Your task to perform on an android device: turn on sleep mode Image 0: 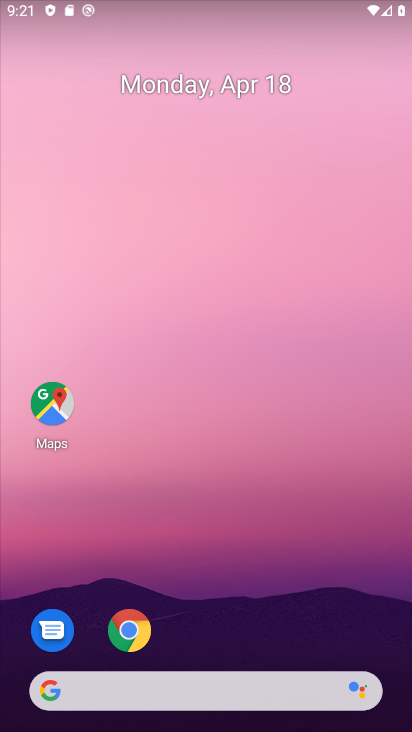
Step 0: drag from (237, 533) to (409, 568)
Your task to perform on an android device: turn on sleep mode Image 1: 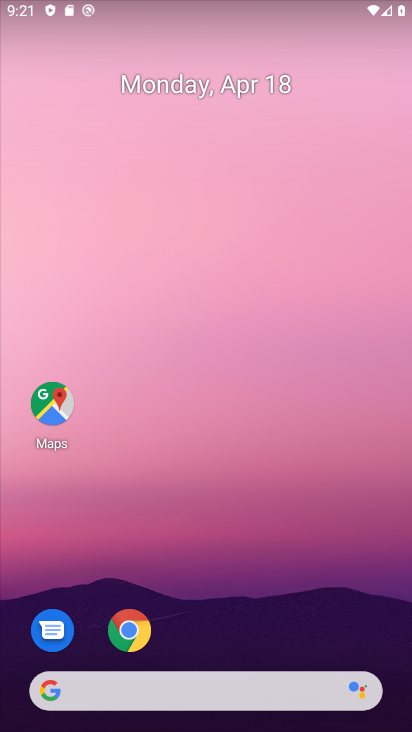
Step 1: drag from (235, 661) to (389, 129)
Your task to perform on an android device: turn on sleep mode Image 2: 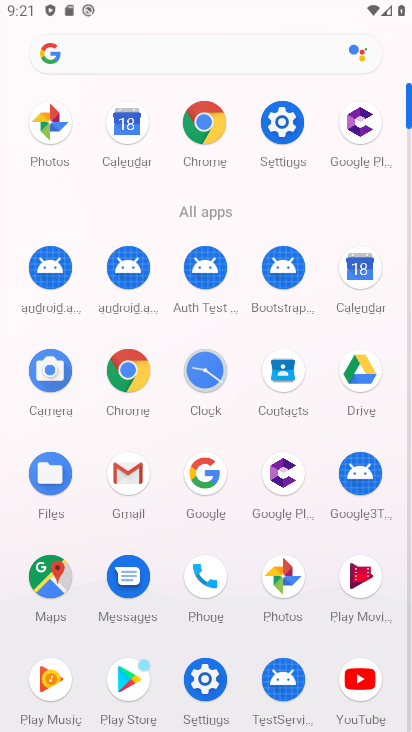
Step 2: click (297, 118)
Your task to perform on an android device: turn on sleep mode Image 3: 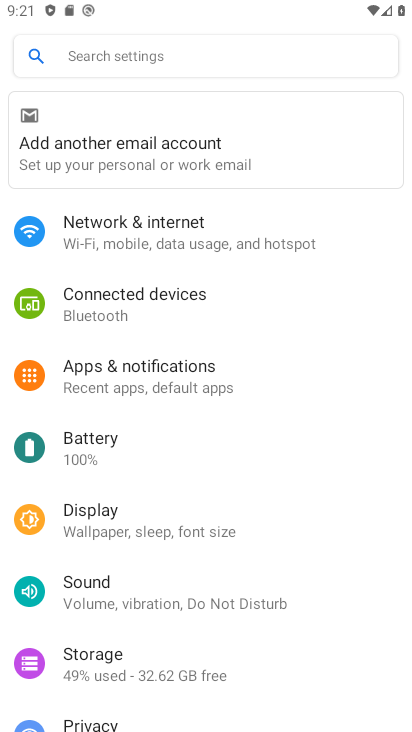
Step 3: click (140, 531)
Your task to perform on an android device: turn on sleep mode Image 4: 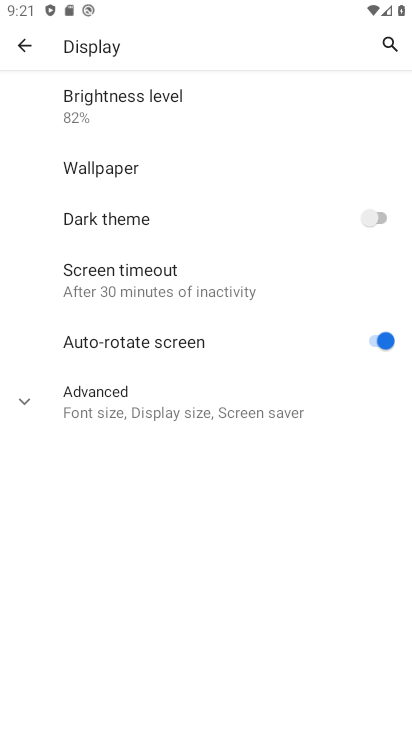
Step 4: click (186, 402)
Your task to perform on an android device: turn on sleep mode Image 5: 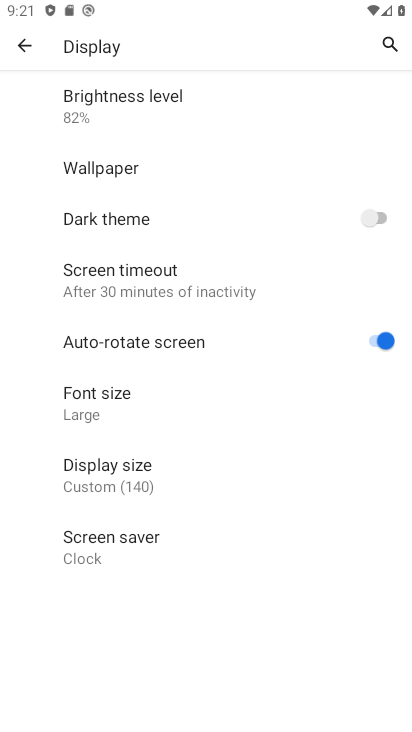
Step 5: task complete